Your task to perform on an android device: Clear all items from cart on walmart.com. Search for corsair k70 on walmart.com, select the first entry, add it to the cart, then select checkout. Image 0: 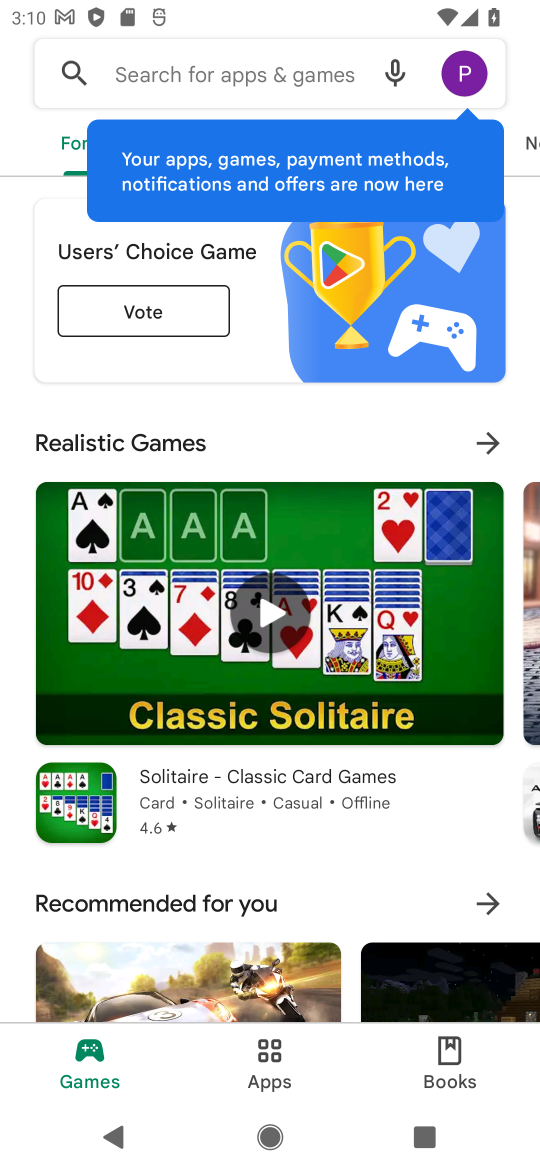
Step 0: press home button
Your task to perform on an android device: Clear all items from cart on walmart.com. Search for corsair k70 on walmart.com, select the first entry, add it to the cart, then select checkout. Image 1: 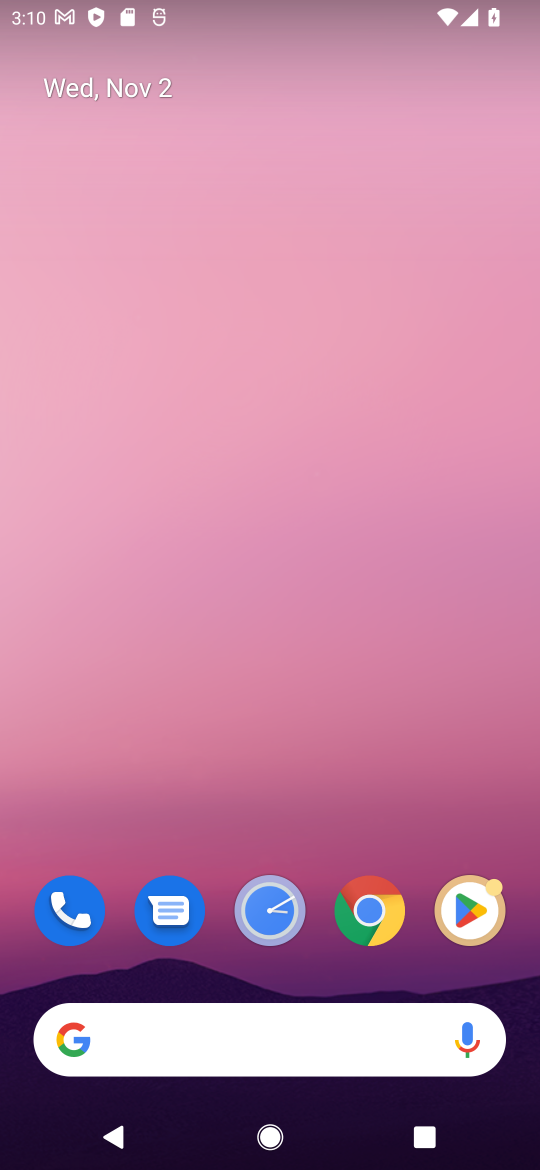
Step 1: click (369, 895)
Your task to perform on an android device: Clear all items from cart on walmart.com. Search for corsair k70 on walmart.com, select the first entry, add it to the cart, then select checkout. Image 2: 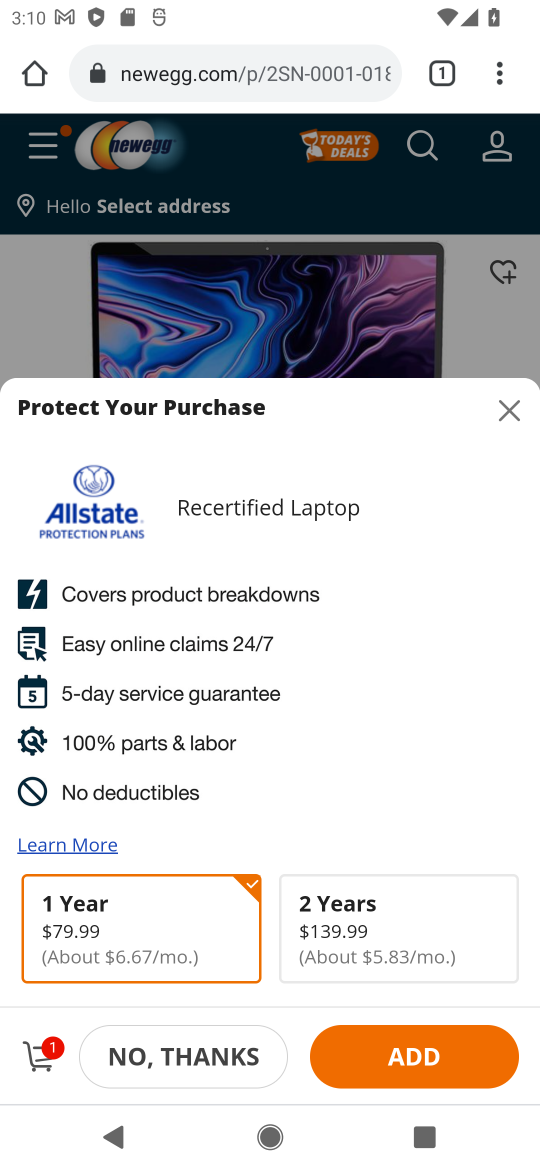
Step 2: click (503, 406)
Your task to perform on an android device: Clear all items from cart on walmart.com. Search for corsair k70 on walmart.com, select the first entry, add it to the cart, then select checkout. Image 3: 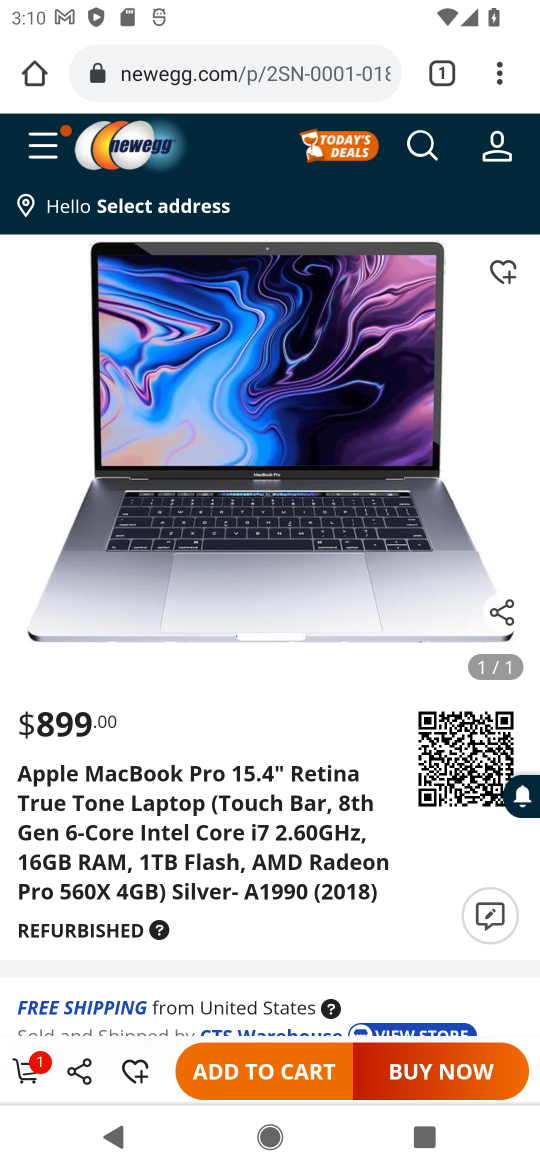
Step 3: click (430, 78)
Your task to perform on an android device: Clear all items from cart on walmart.com. Search for corsair k70 on walmart.com, select the first entry, add it to the cart, then select checkout. Image 4: 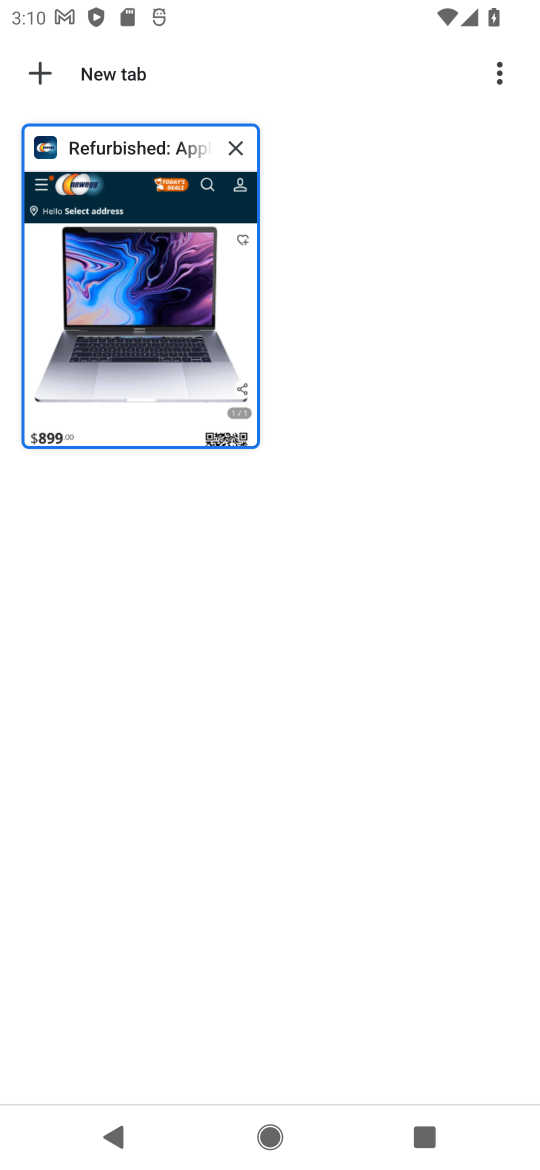
Step 4: click (45, 82)
Your task to perform on an android device: Clear all items from cart on walmart.com. Search for corsair k70 on walmart.com, select the first entry, add it to the cart, then select checkout. Image 5: 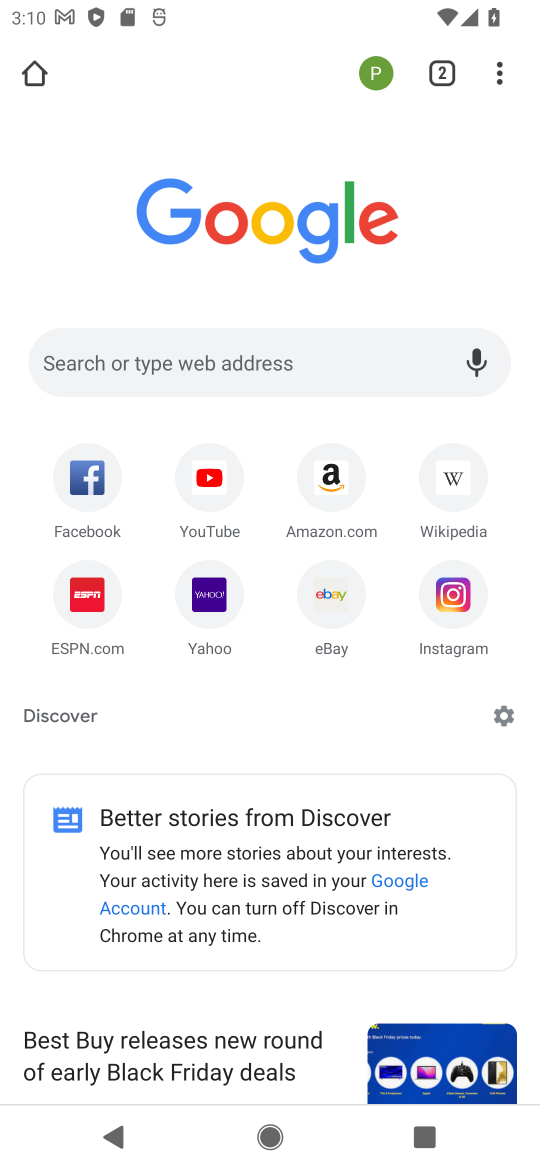
Step 5: click (283, 357)
Your task to perform on an android device: Clear all items from cart on walmart.com. Search for corsair k70 on walmart.com, select the first entry, add it to the cart, then select checkout. Image 6: 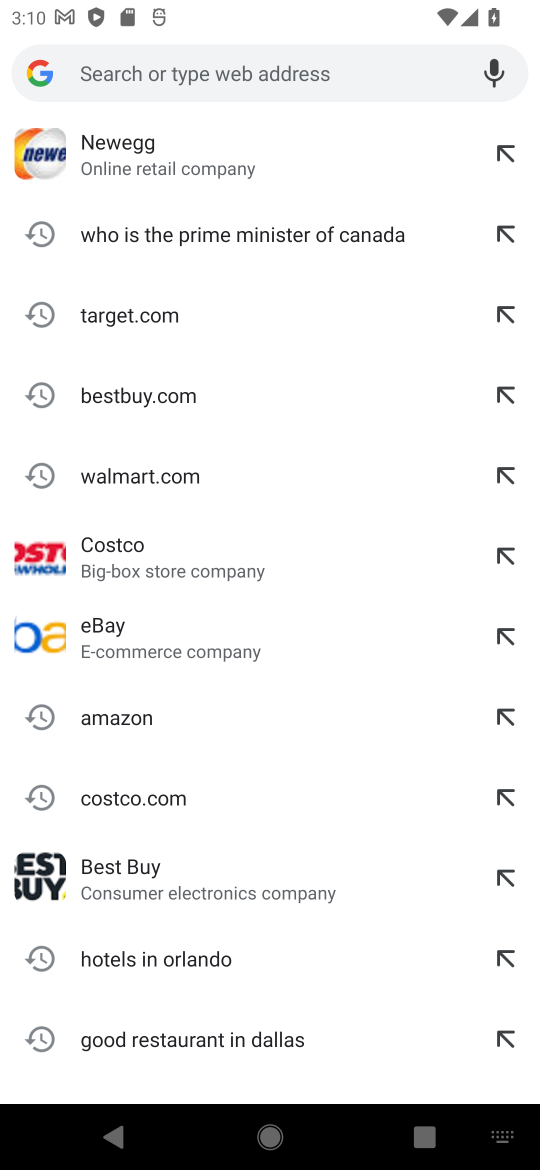
Step 6: type "walmart"
Your task to perform on an android device: Clear all items from cart on walmart.com. Search for corsair k70 on walmart.com, select the first entry, add it to the cart, then select checkout. Image 7: 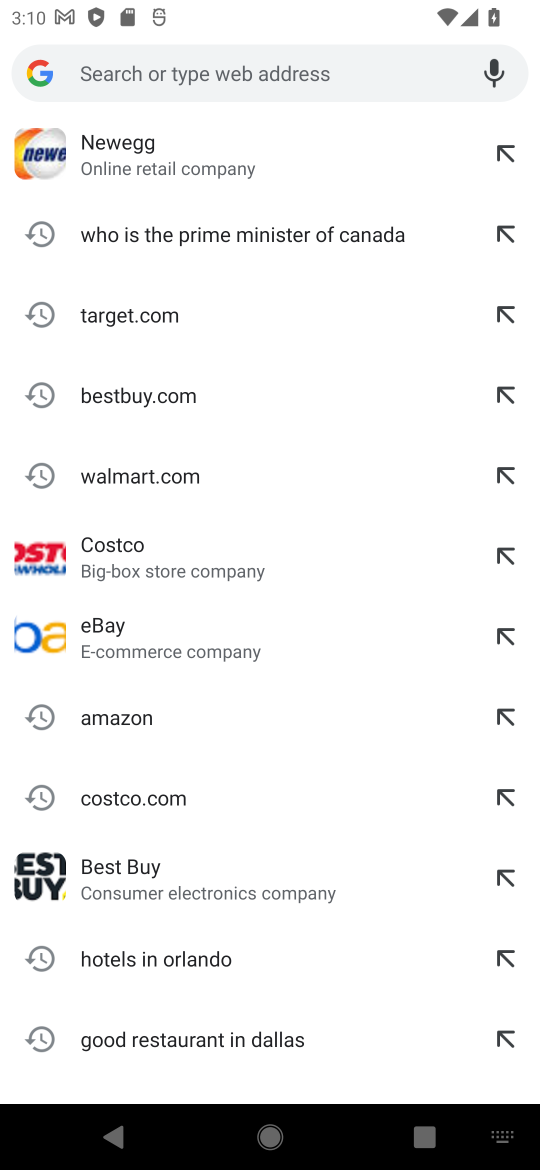
Step 7: click (134, 463)
Your task to perform on an android device: Clear all items from cart on walmart.com. Search for corsair k70 on walmart.com, select the first entry, add it to the cart, then select checkout. Image 8: 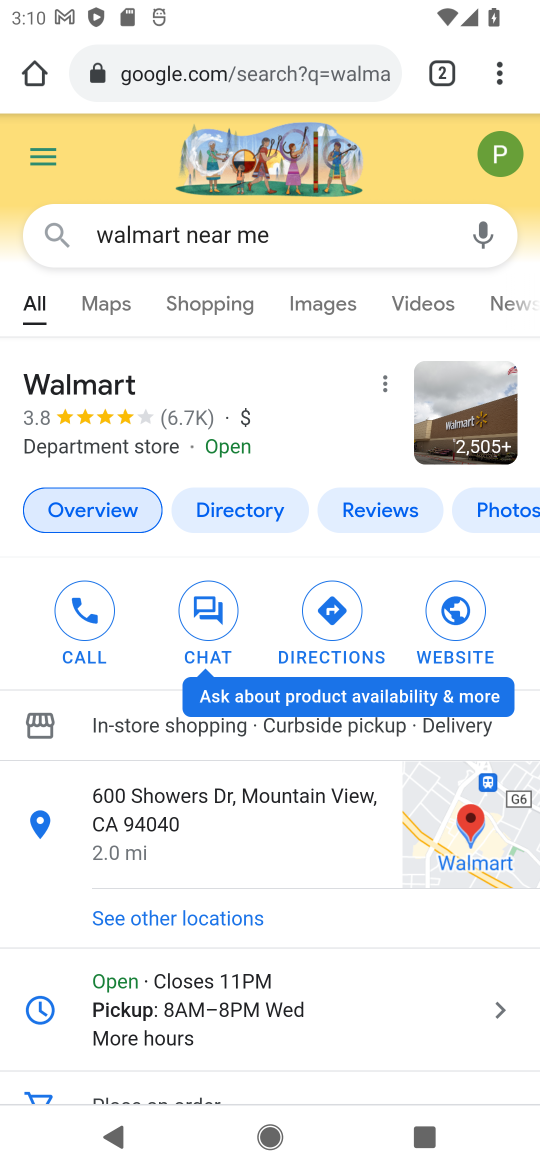
Step 8: click (216, 301)
Your task to perform on an android device: Clear all items from cart on walmart.com. Search for corsair k70 on walmart.com, select the first entry, add it to the cart, then select checkout. Image 9: 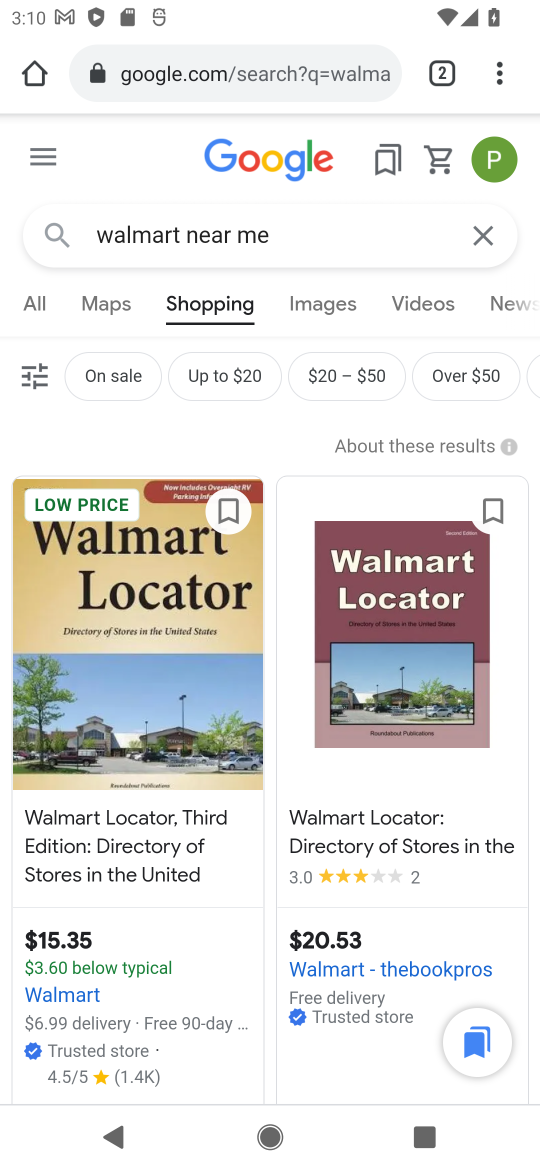
Step 9: drag from (248, 964) to (520, 409)
Your task to perform on an android device: Clear all items from cart on walmart.com. Search for corsair k70 on walmart.com, select the first entry, add it to the cart, then select checkout. Image 10: 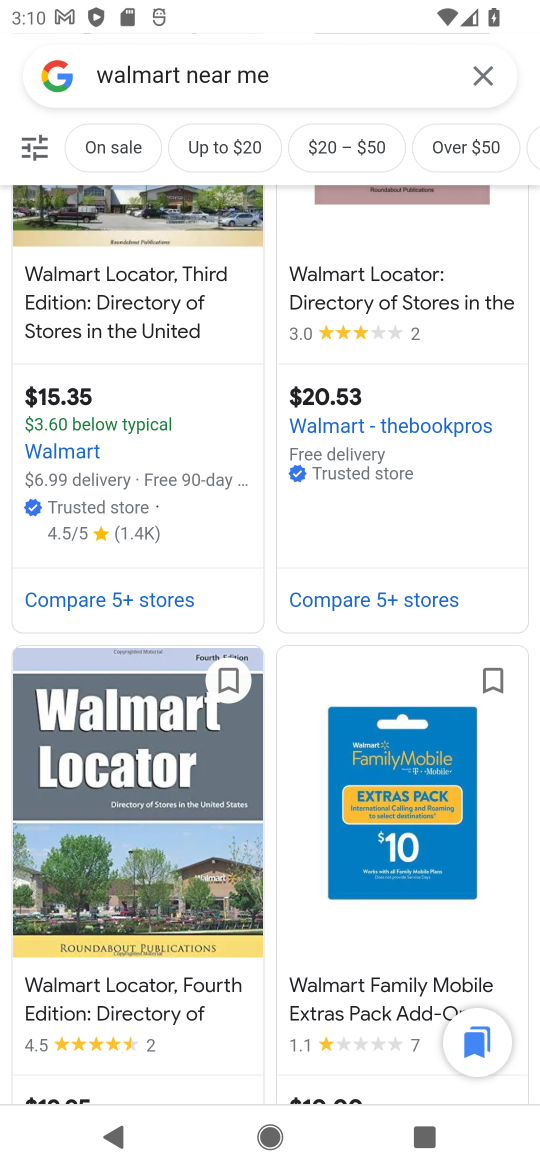
Step 10: drag from (247, 375) to (221, 1075)
Your task to perform on an android device: Clear all items from cart on walmart.com. Search for corsair k70 on walmart.com, select the first entry, add it to the cart, then select checkout. Image 11: 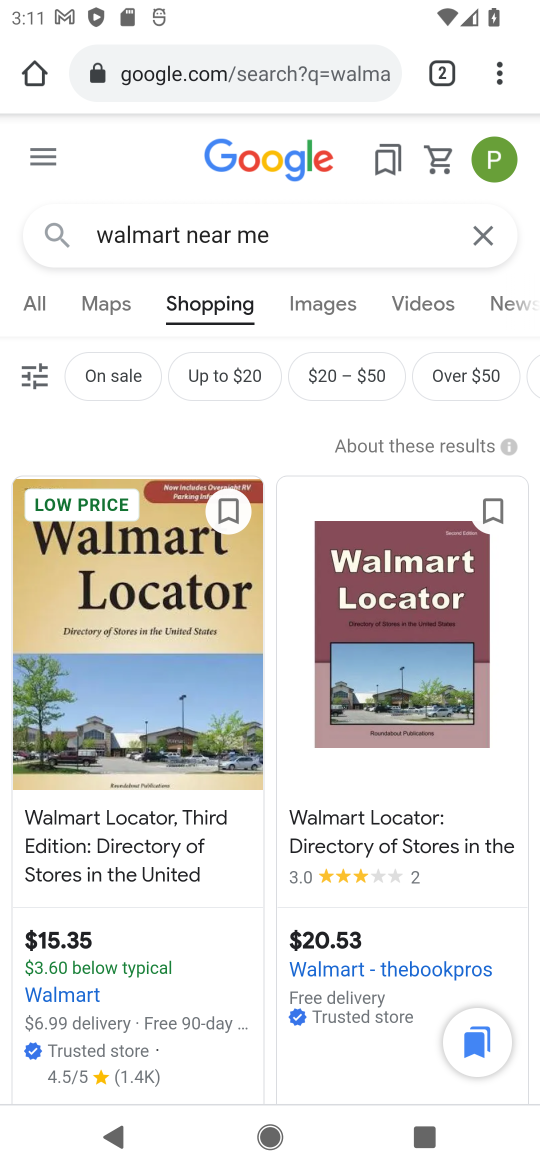
Step 11: click (31, 297)
Your task to perform on an android device: Clear all items from cart on walmart.com. Search for corsair k70 on walmart.com, select the first entry, add it to the cart, then select checkout. Image 12: 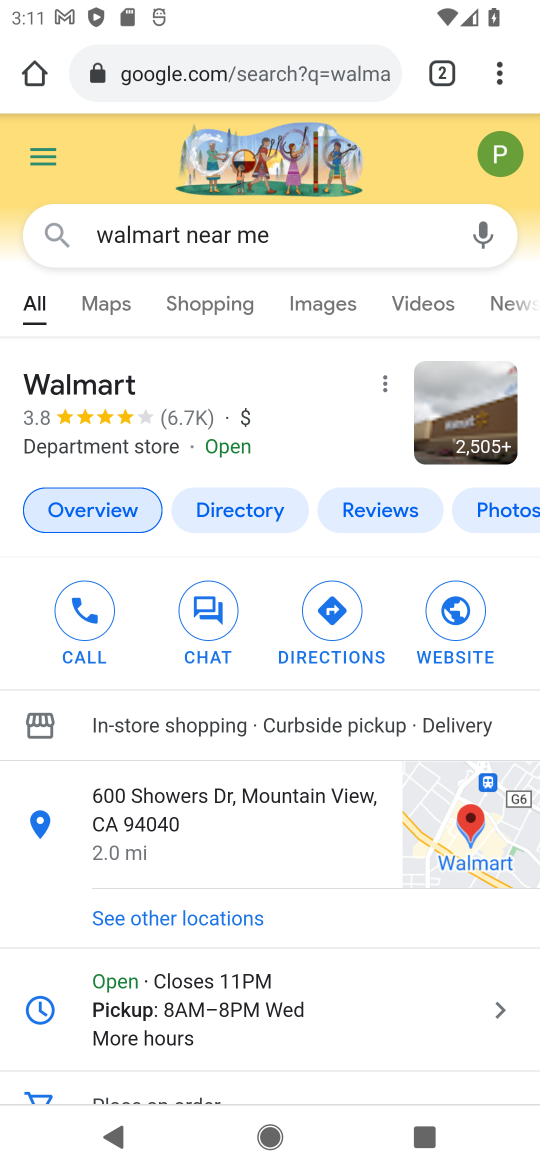
Step 12: drag from (322, 922) to (430, 352)
Your task to perform on an android device: Clear all items from cart on walmart.com. Search for corsair k70 on walmart.com, select the first entry, add it to the cart, then select checkout. Image 13: 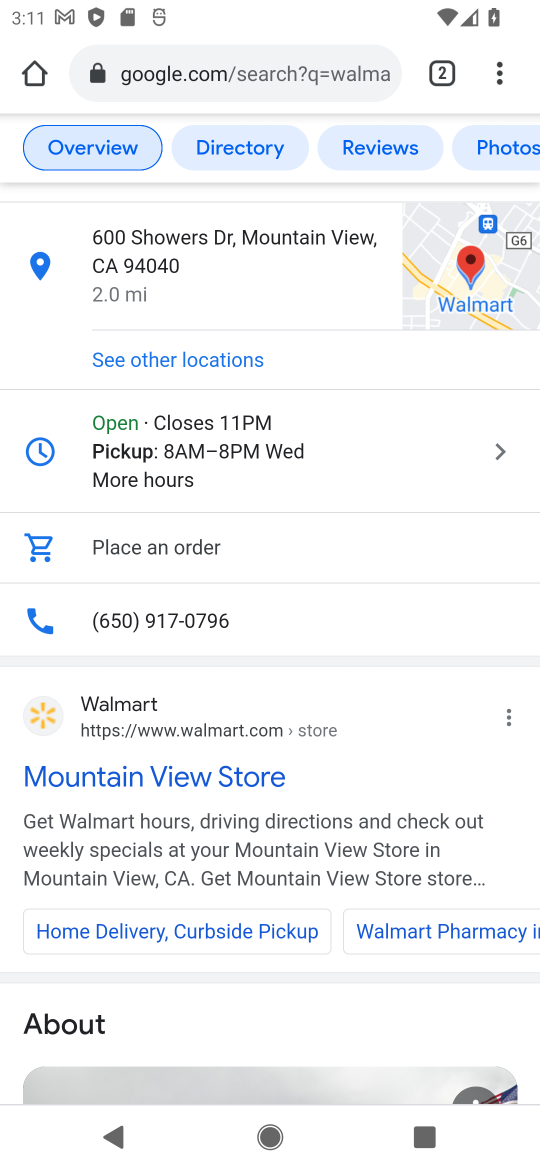
Step 13: click (107, 787)
Your task to perform on an android device: Clear all items from cart on walmart.com. Search for corsair k70 on walmart.com, select the first entry, add it to the cart, then select checkout. Image 14: 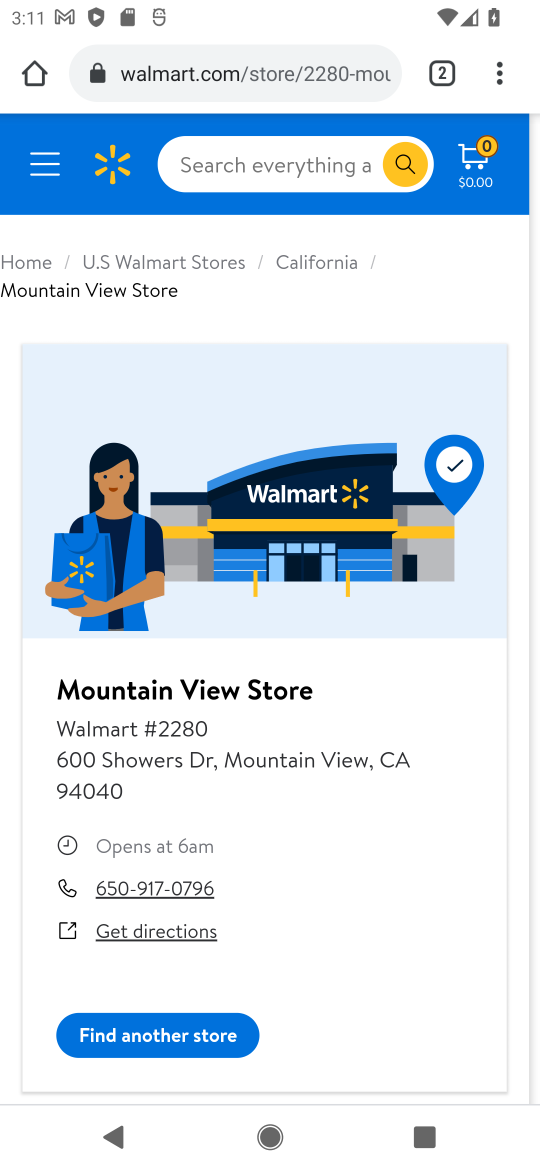
Step 14: click (321, 169)
Your task to perform on an android device: Clear all items from cart on walmart.com. Search for corsair k70 on walmart.com, select the first entry, add it to the cart, then select checkout. Image 15: 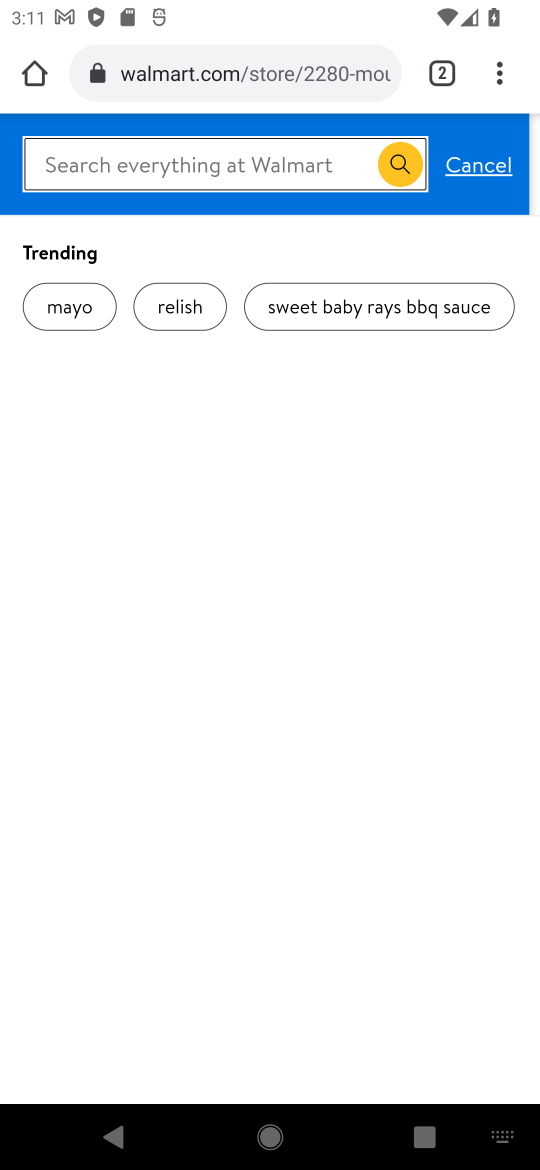
Step 15: type "corsair k70"
Your task to perform on an android device: Clear all items from cart on walmart.com. Search for corsair k70 on walmart.com, select the first entry, add it to the cart, then select checkout. Image 16: 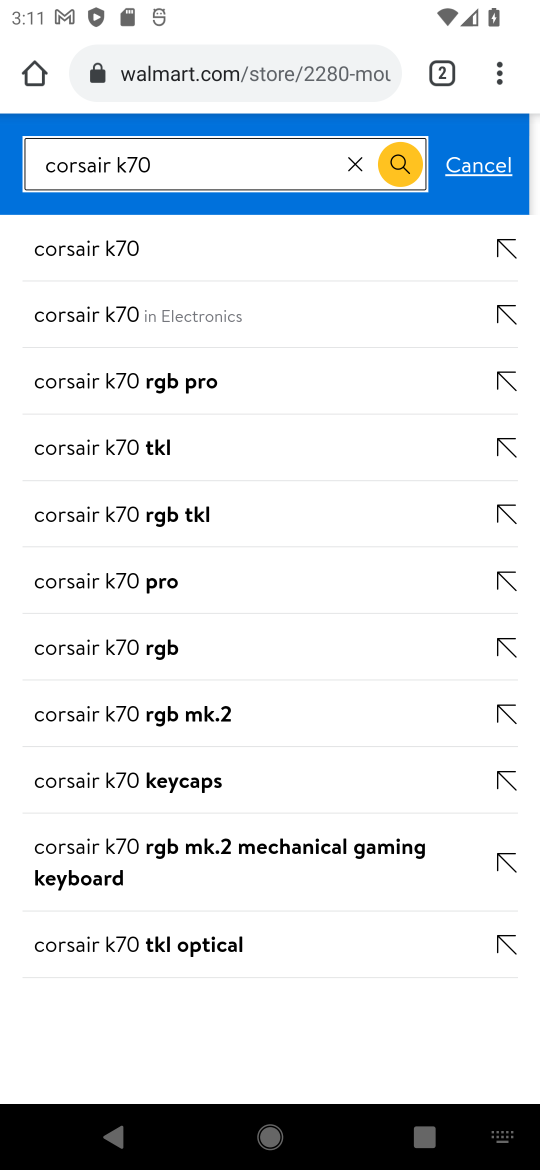
Step 16: click (154, 312)
Your task to perform on an android device: Clear all items from cart on walmart.com. Search for corsair k70 on walmart.com, select the first entry, add it to the cart, then select checkout. Image 17: 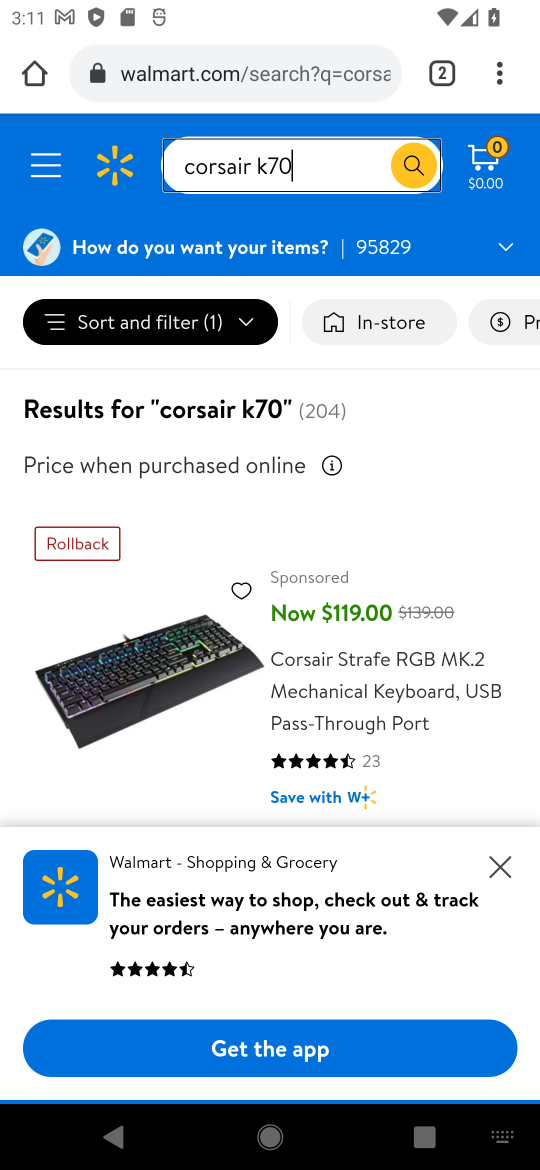
Step 17: click (500, 872)
Your task to perform on an android device: Clear all items from cart on walmart.com. Search for corsair k70 on walmart.com, select the first entry, add it to the cart, then select checkout. Image 18: 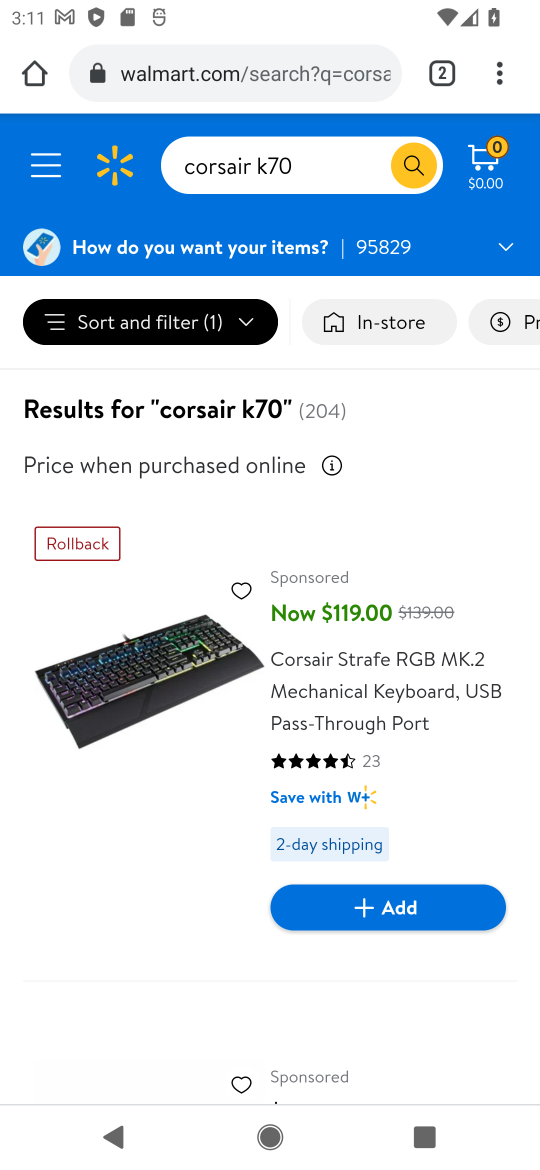
Step 18: click (401, 910)
Your task to perform on an android device: Clear all items from cart on walmart.com. Search for corsair k70 on walmart.com, select the first entry, add it to the cart, then select checkout. Image 19: 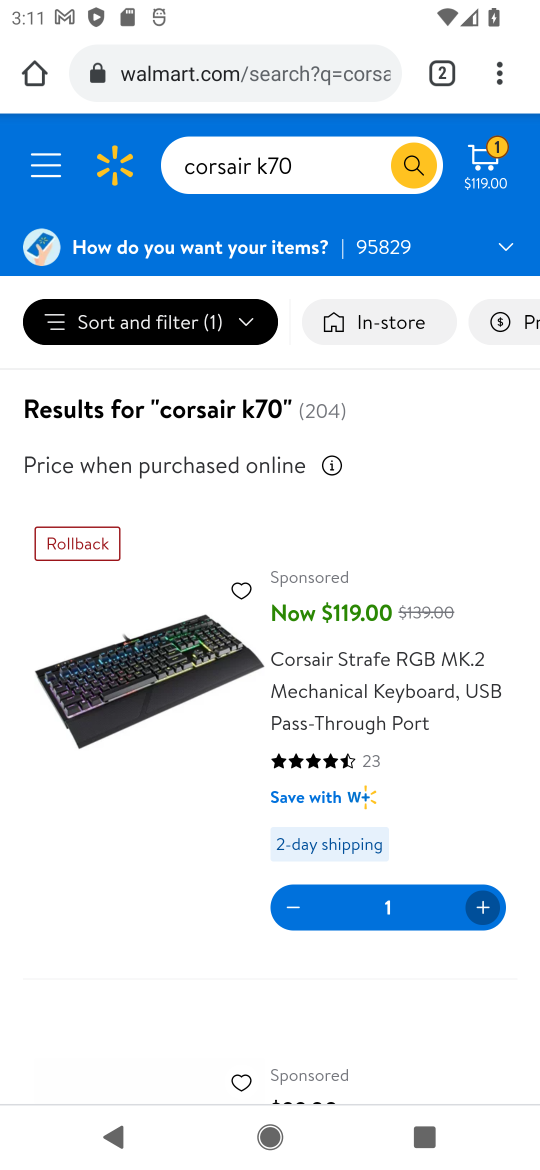
Step 19: task complete